Your task to perform on an android device: Search for the Best selling coffee table on Ikea Image 0: 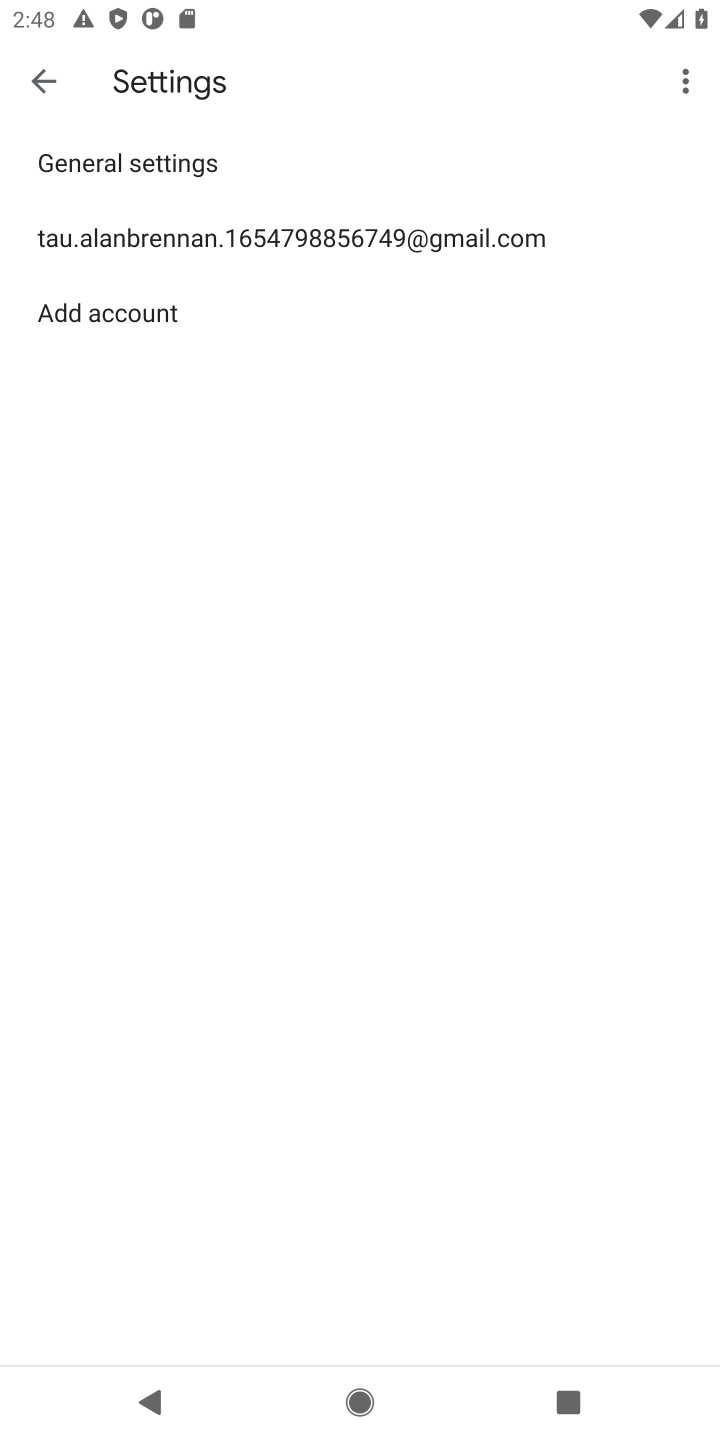
Step 0: press home button
Your task to perform on an android device: Search for the Best selling coffee table on Ikea Image 1: 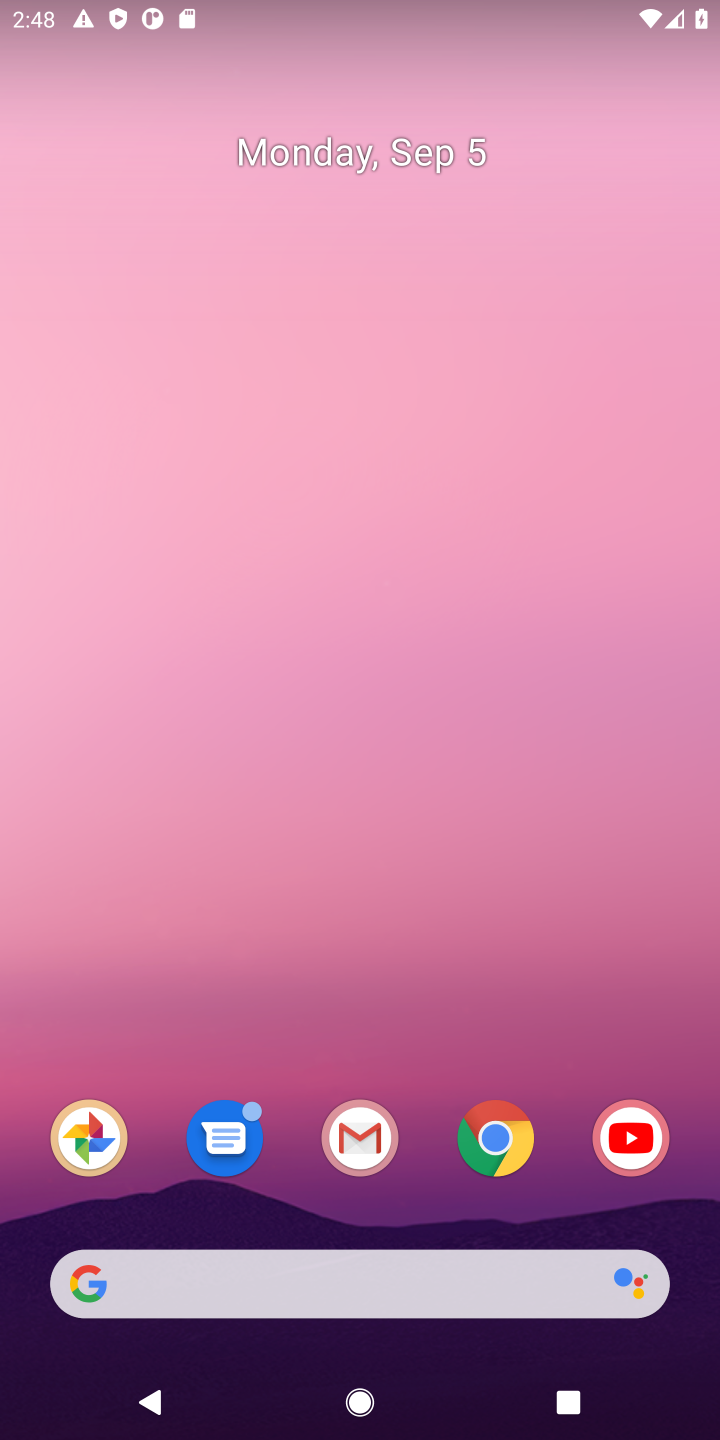
Step 1: click (501, 1144)
Your task to perform on an android device: Search for the Best selling coffee table on Ikea Image 2: 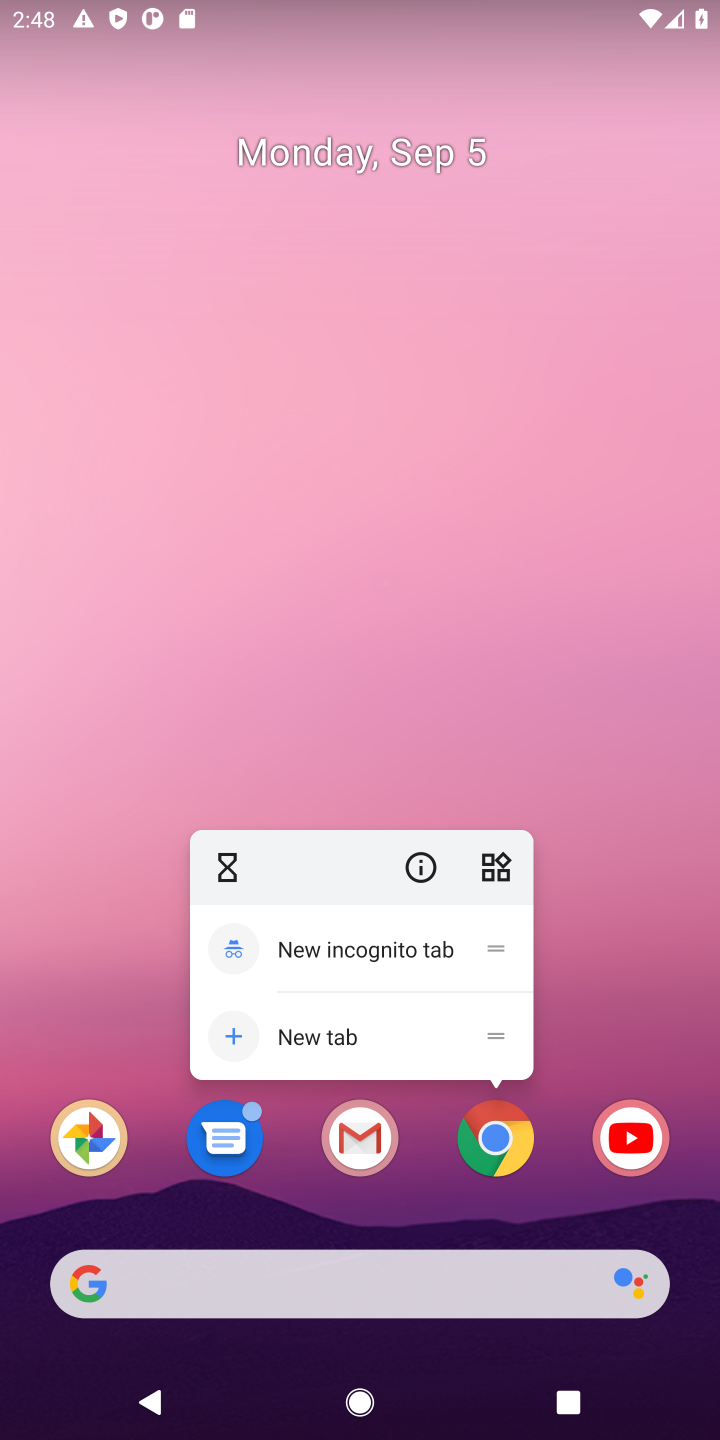
Step 2: click (497, 1141)
Your task to perform on an android device: Search for the Best selling coffee table on Ikea Image 3: 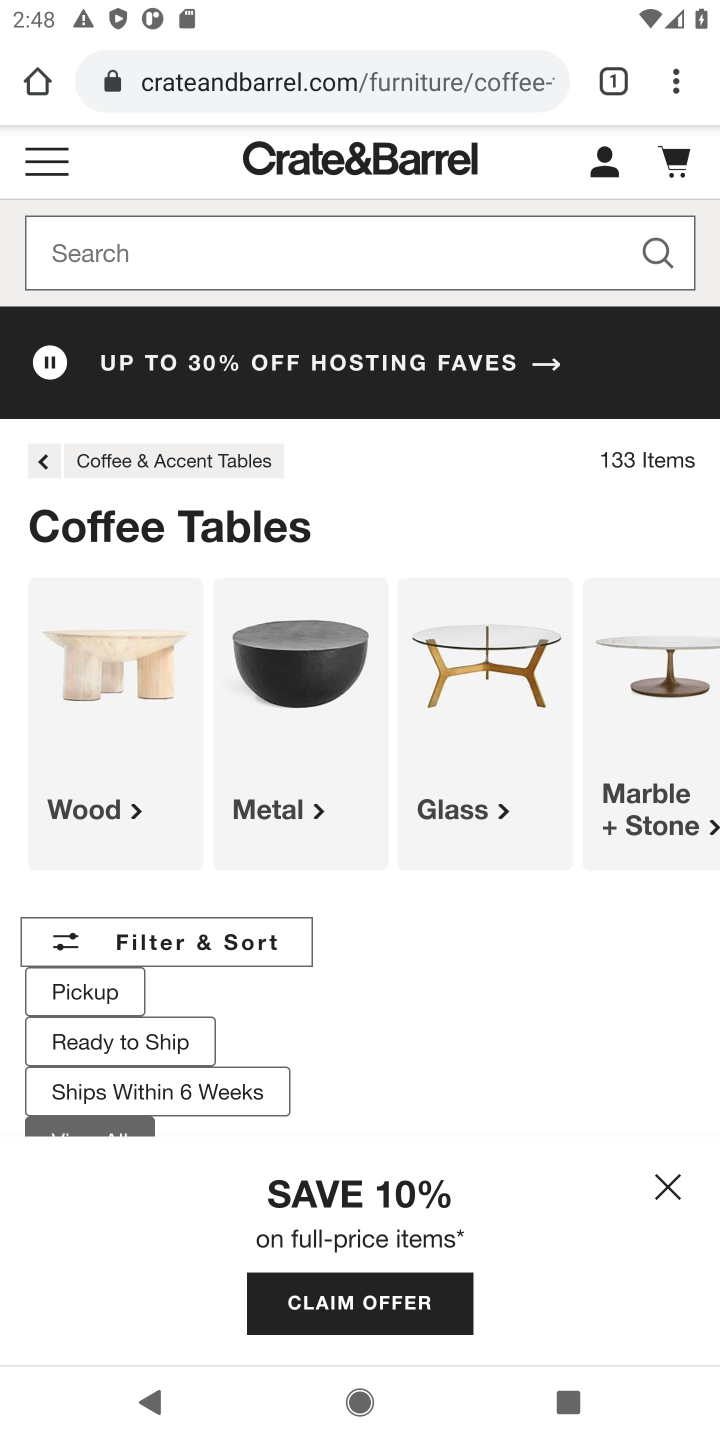
Step 3: click (453, 62)
Your task to perform on an android device: Search for the Best selling coffee table on Ikea Image 4: 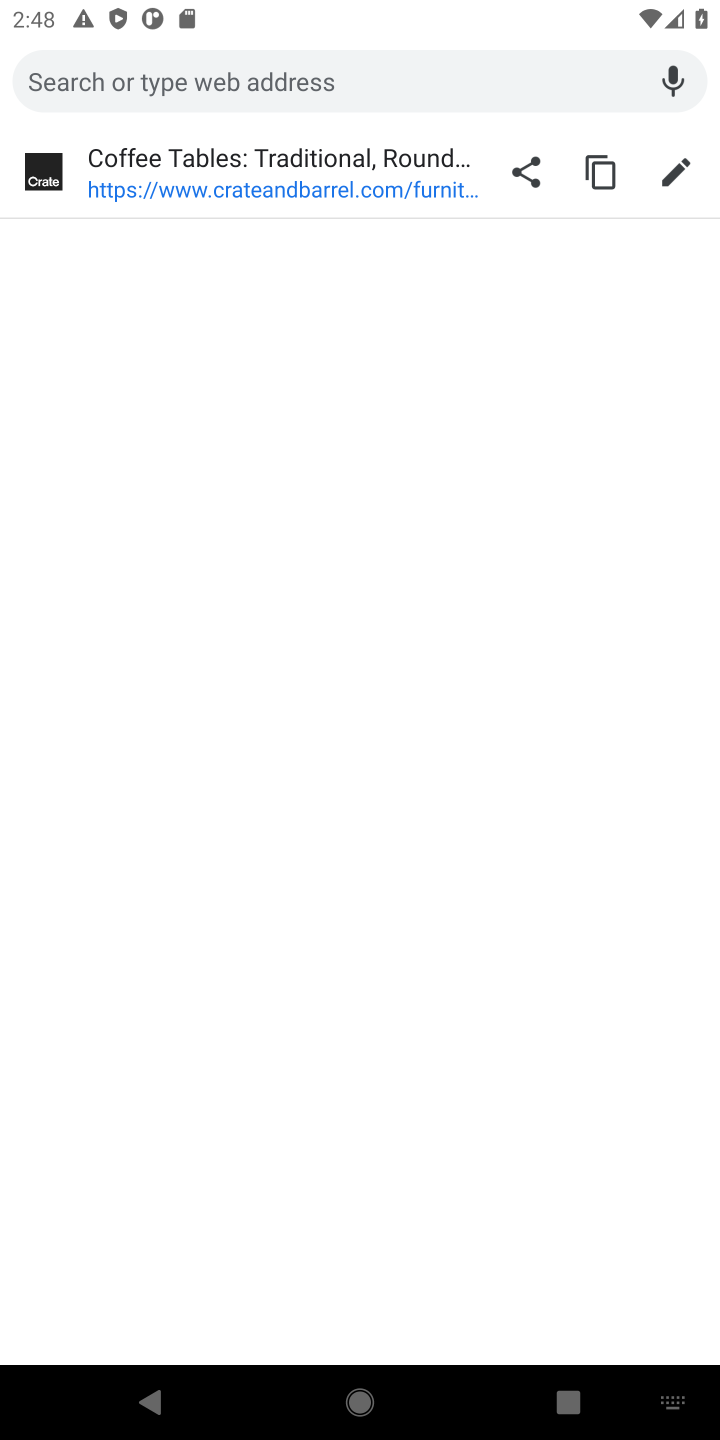
Step 4: type "Ikea"
Your task to perform on an android device: Search for the Best selling coffee table on Ikea Image 5: 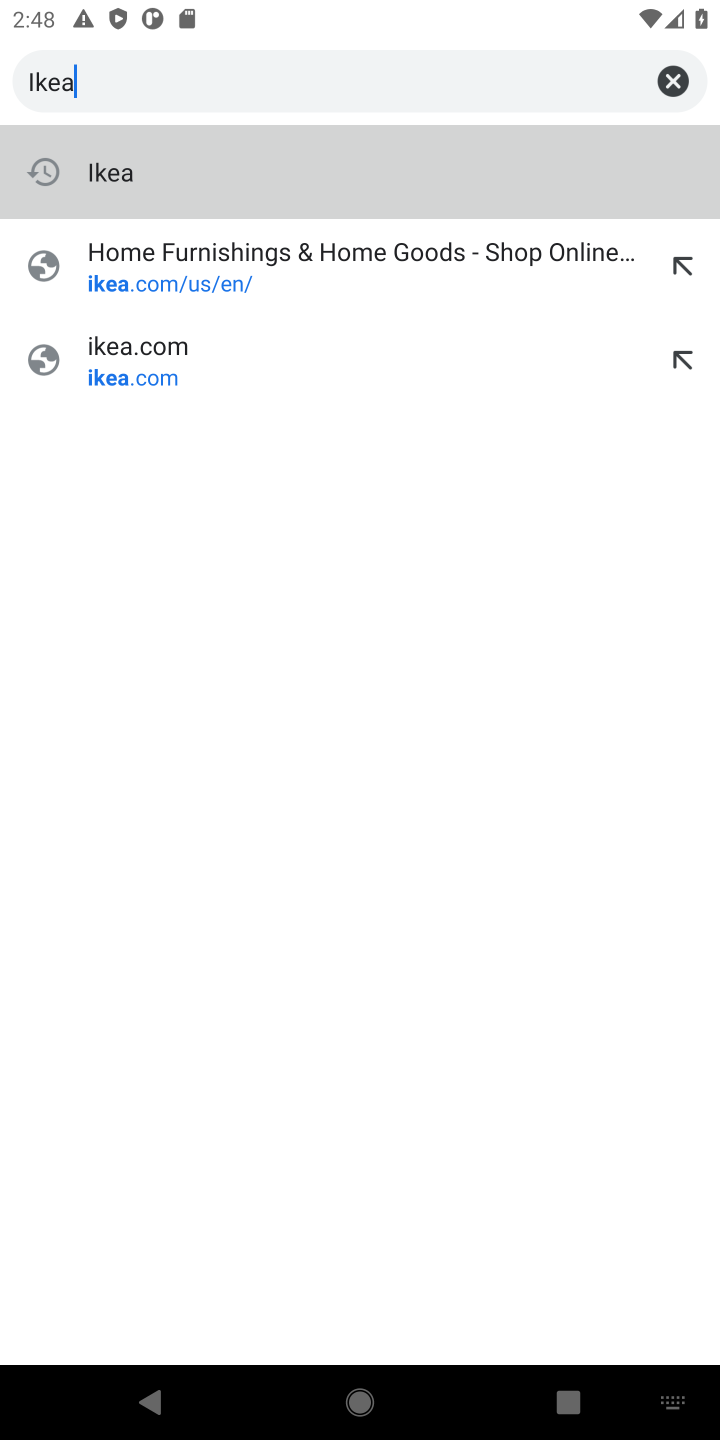
Step 5: click (299, 187)
Your task to perform on an android device: Search for the Best selling coffee table on Ikea Image 6: 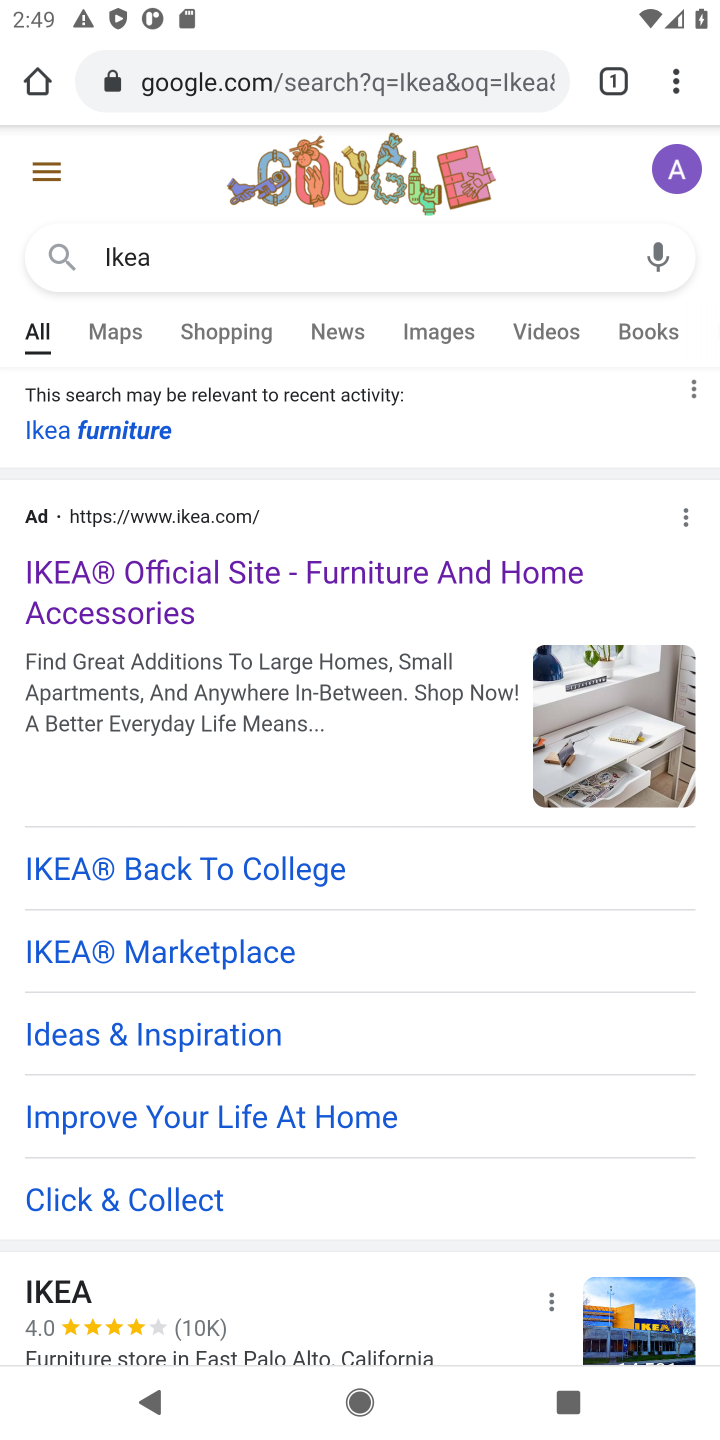
Step 6: drag from (297, 1271) to (402, 610)
Your task to perform on an android device: Search for the Best selling coffee table on Ikea Image 7: 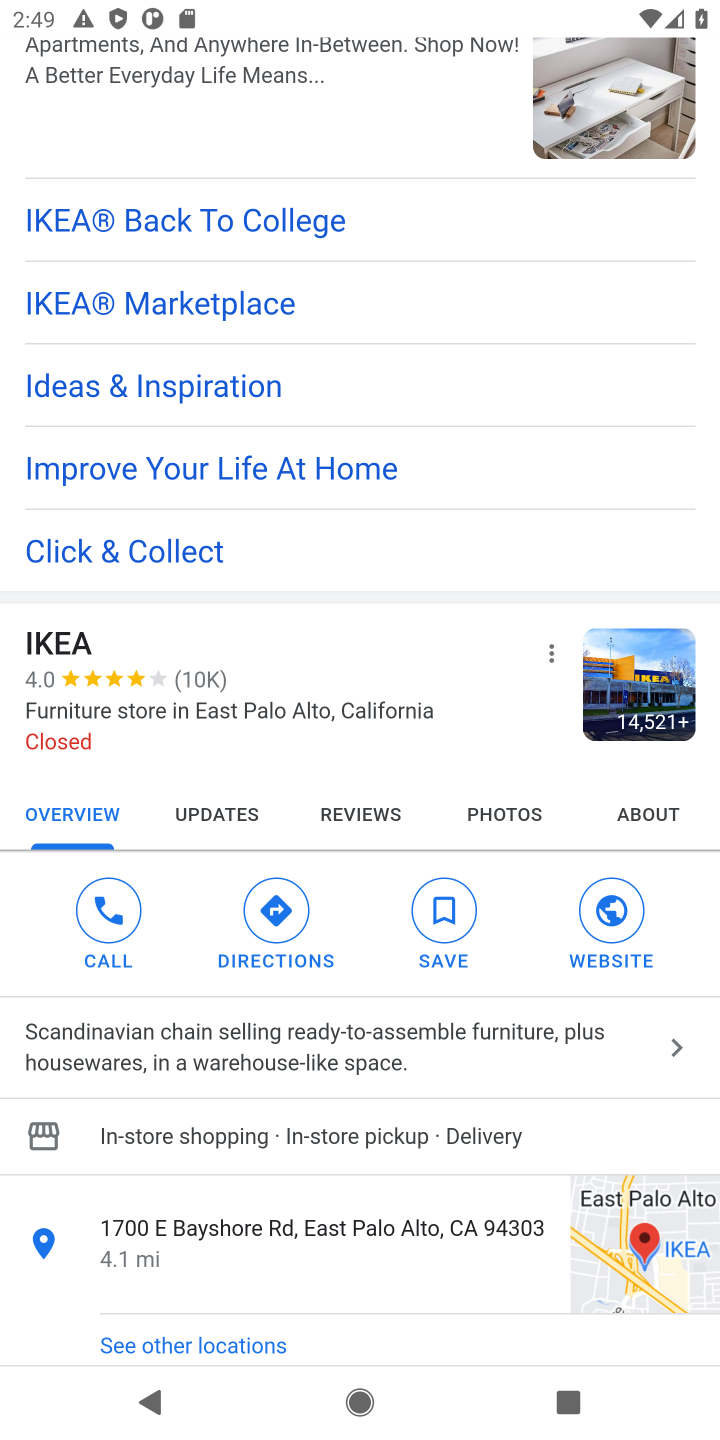
Step 7: drag from (383, 1184) to (493, 252)
Your task to perform on an android device: Search for the Best selling coffee table on Ikea Image 8: 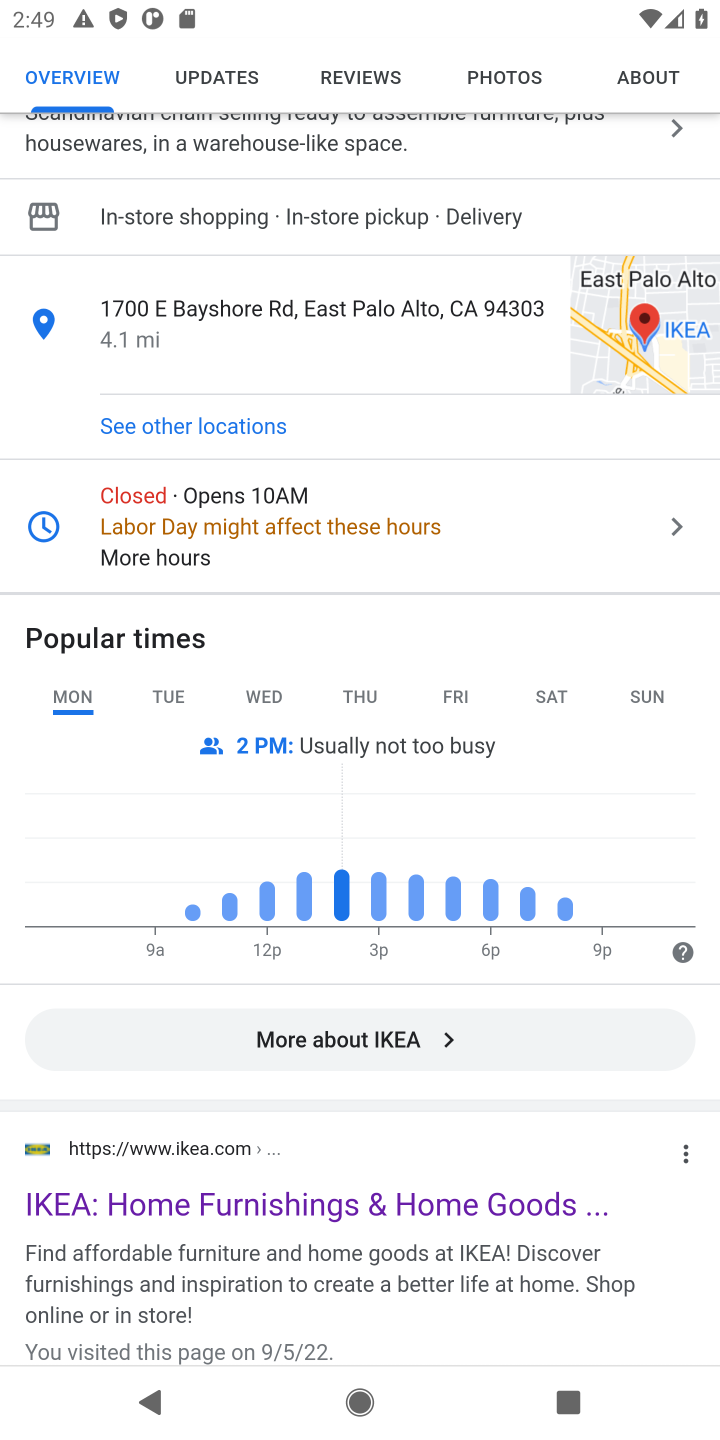
Step 8: click (498, 1228)
Your task to perform on an android device: Search for the Best selling coffee table on Ikea Image 9: 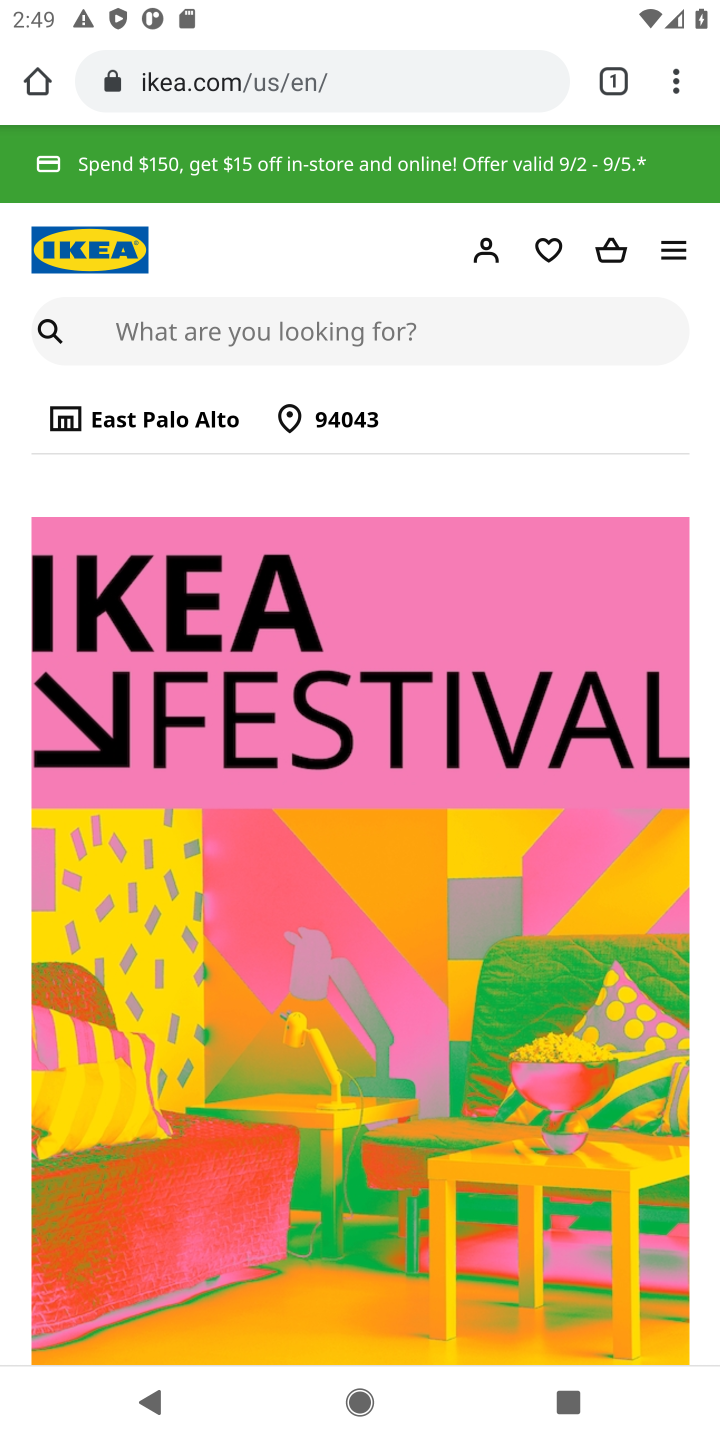
Step 9: click (392, 335)
Your task to perform on an android device: Search for the Best selling coffee table on Ikea Image 10: 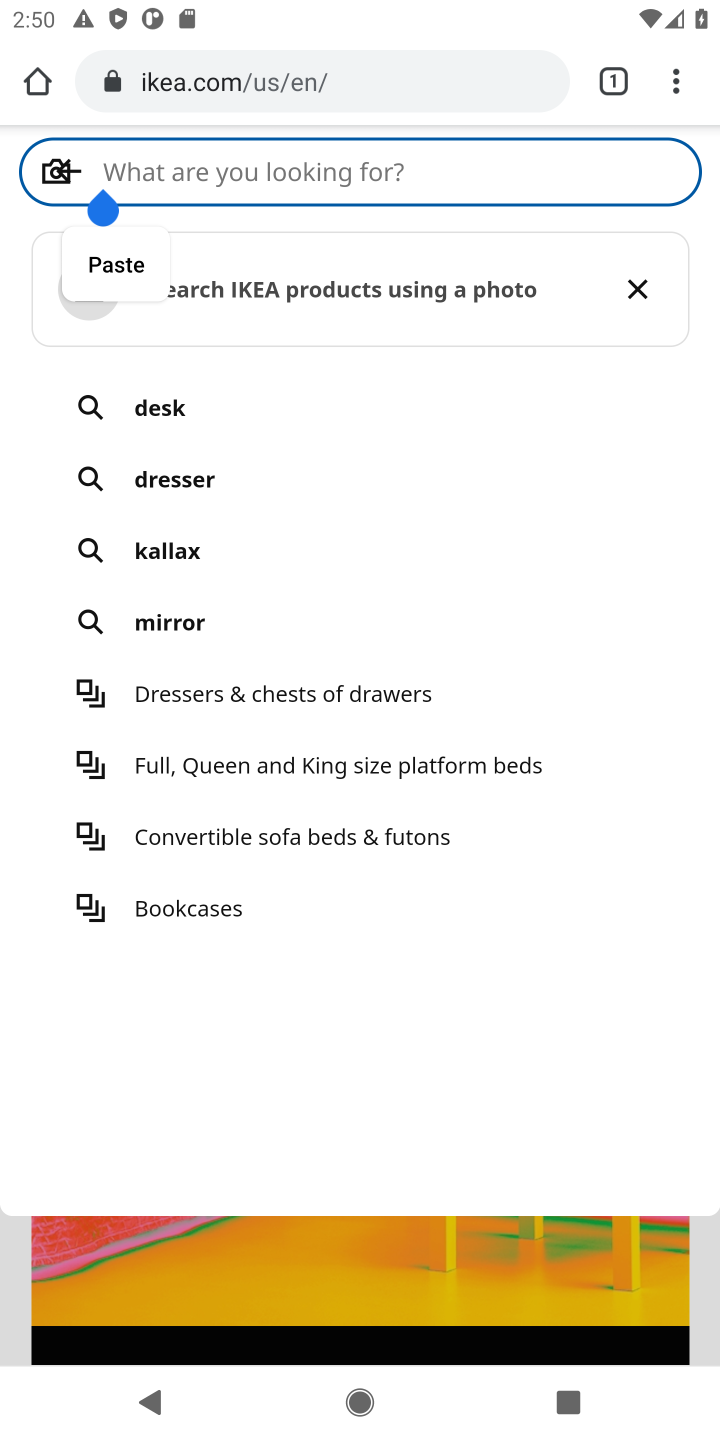
Step 10: type "Best selling coffee table"
Your task to perform on an android device: Search for the Best selling coffee table on Ikea Image 11: 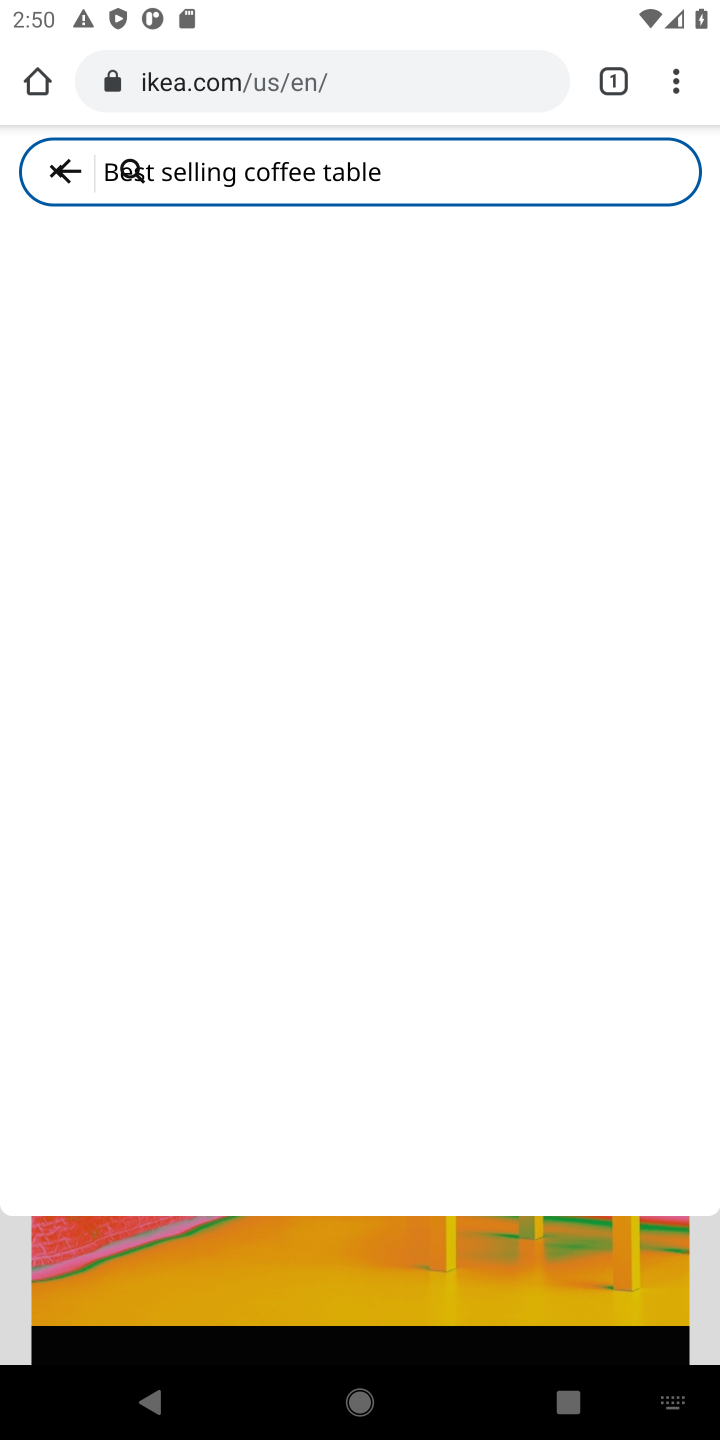
Step 11: drag from (395, 1144) to (350, 179)
Your task to perform on an android device: Search for the Best selling coffee table on Ikea Image 12: 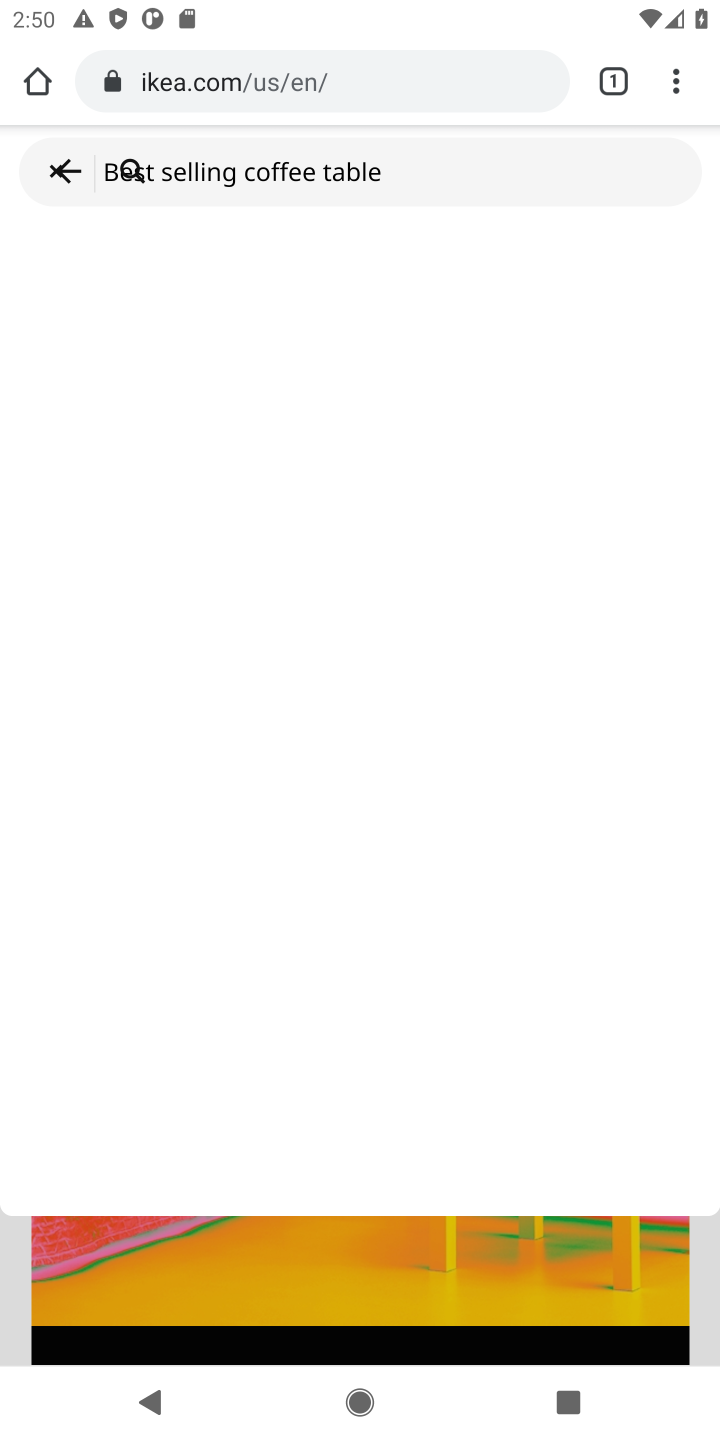
Step 12: click (136, 160)
Your task to perform on an android device: Search for the Best selling coffee table on Ikea Image 13: 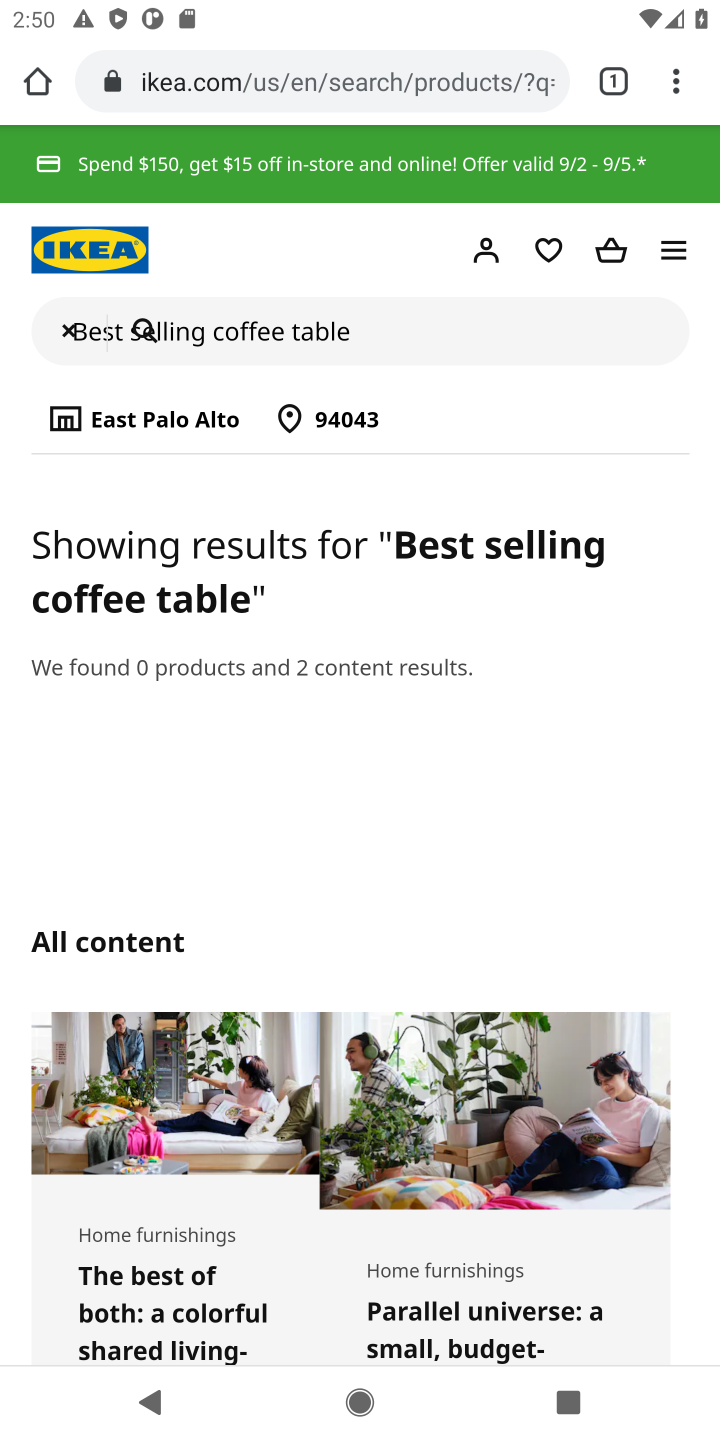
Step 13: task complete